Your task to perform on an android device: Go to network settings Image 0: 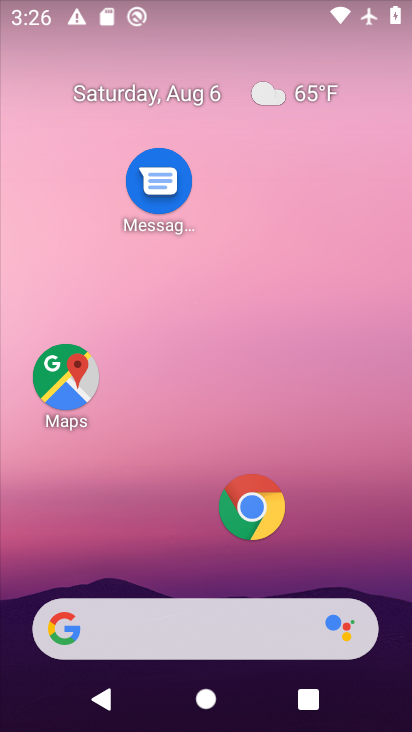
Step 0: drag from (154, 479) to (193, 168)
Your task to perform on an android device: Go to network settings Image 1: 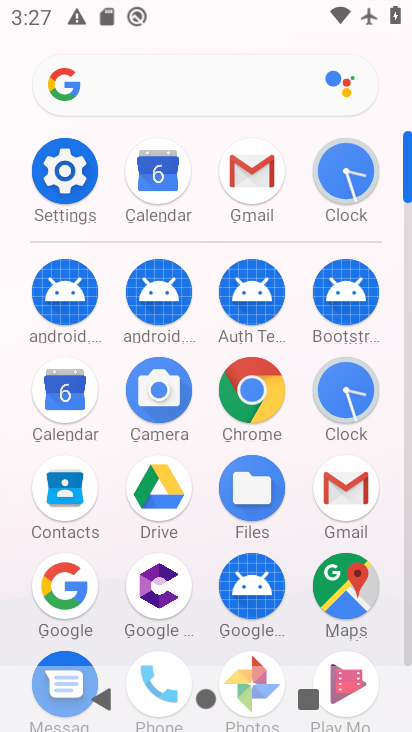
Step 1: click (73, 177)
Your task to perform on an android device: Go to network settings Image 2: 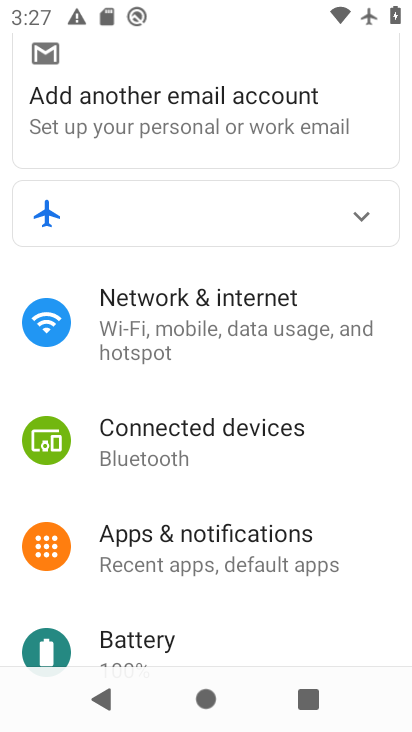
Step 2: click (139, 322)
Your task to perform on an android device: Go to network settings Image 3: 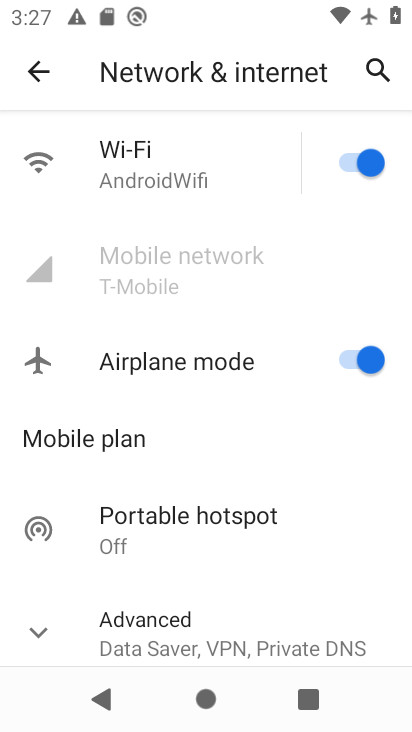
Step 3: task complete